Your task to perform on an android device: Search for seafood restaurants on Google Maps Image 0: 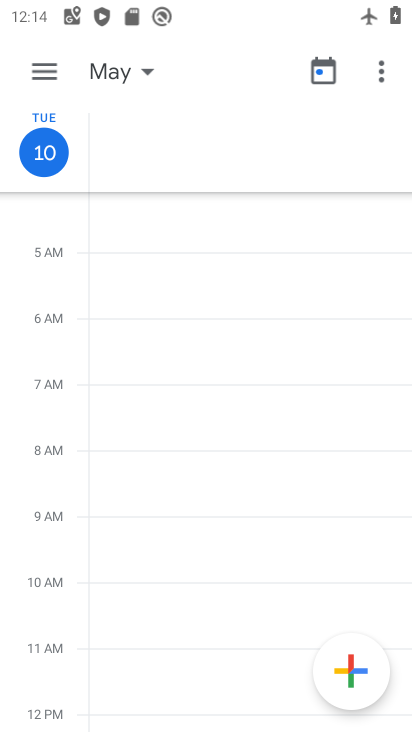
Step 0: press home button
Your task to perform on an android device: Search for seafood restaurants on Google Maps Image 1: 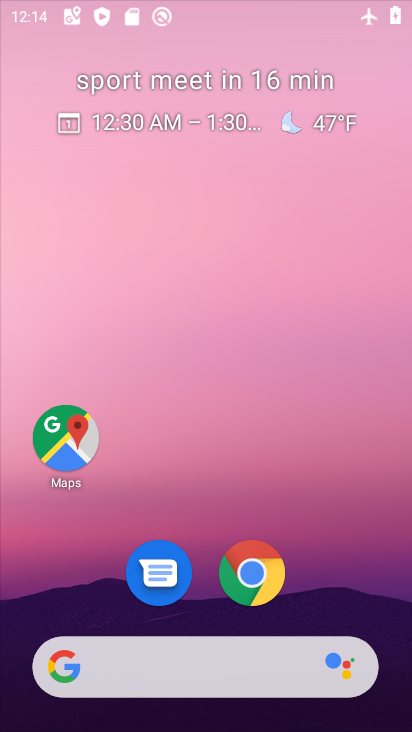
Step 1: drag from (206, 665) to (266, 357)
Your task to perform on an android device: Search for seafood restaurants on Google Maps Image 2: 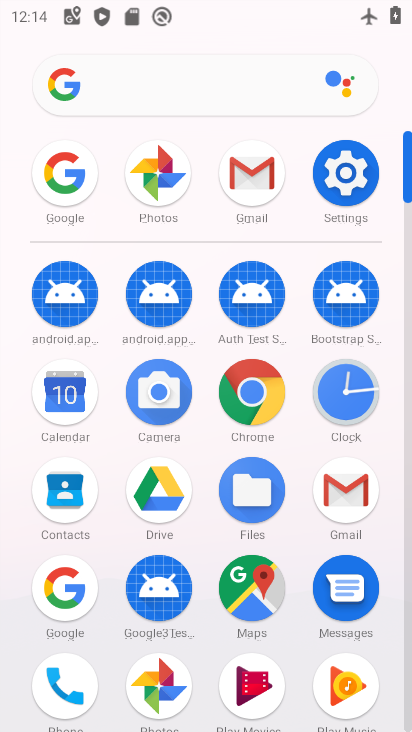
Step 2: click (247, 585)
Your task to perform on an android device: Search for seafood restaurants on Google Maps Image 3: 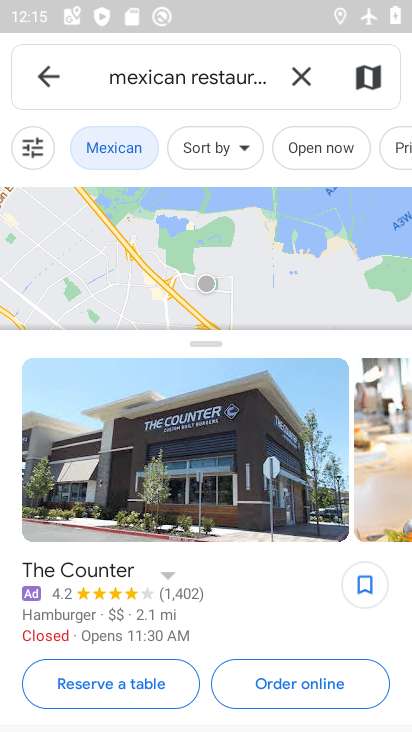
Step 3: drag from (257, 588) to (341, 314)
Your task to perform on an android device: Search for seafood restaurants on Google Maps Image 4: 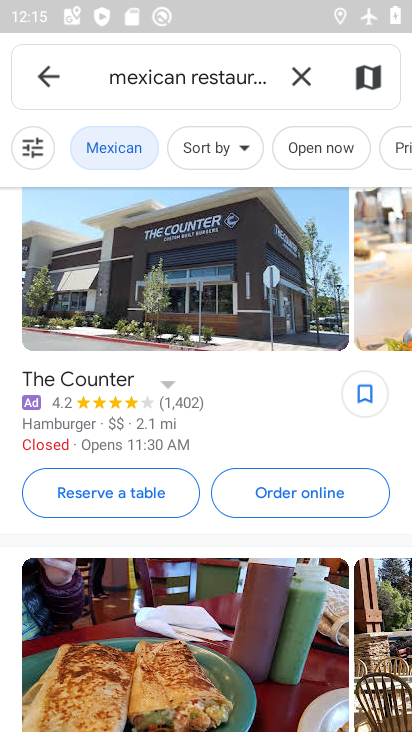
Step 4: drag from (273, 296) to (292, 606)
Your task to perform on an android device: Search for seafood restaurants on Google Maps Image 5: 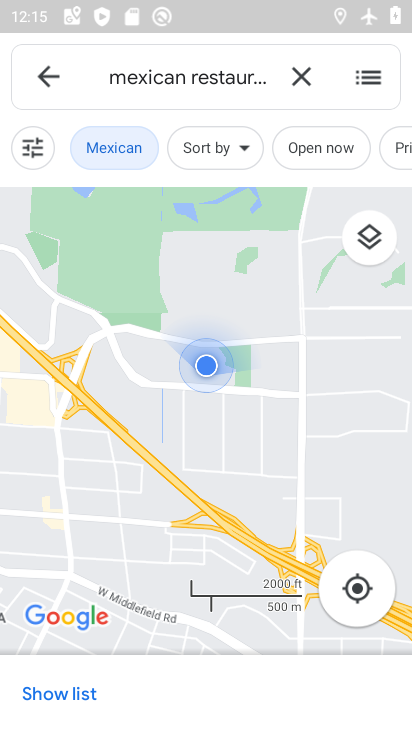
Step 5: click (315, 91)
Your task to perform on an android device: Search for seafood restaurants on Google Maps Image 6: 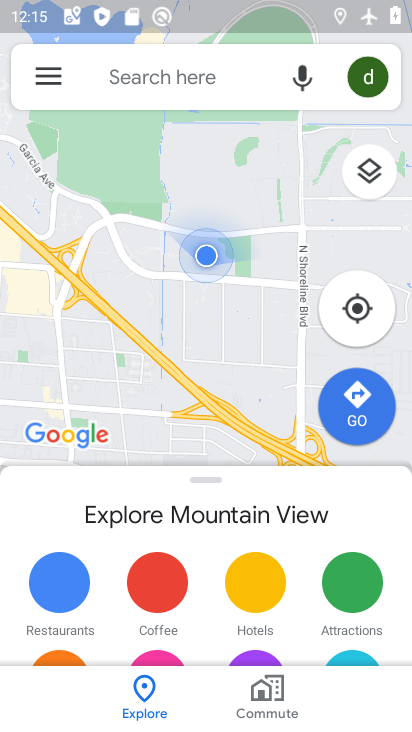
Step 6: drag from (220, 545) to (210, 320)
Your task to perform on an android device: Search for seafood restaurants on Google Maps Image 7: 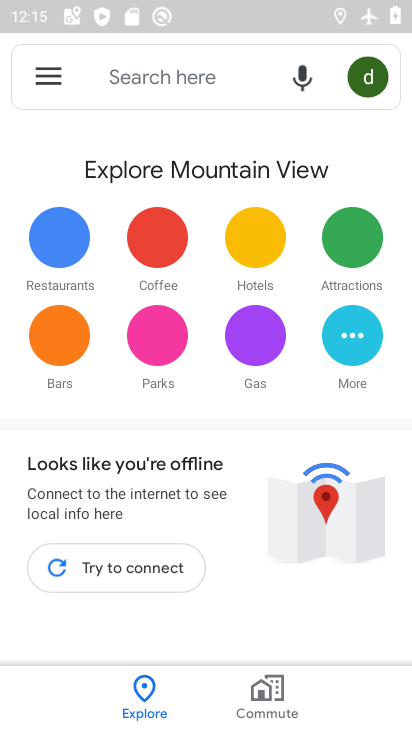
Step 7: drag from (267, 648) to (287, 412)
Your task to perform on an android device: Search for seafood restaurants on Google Maps Image 8: 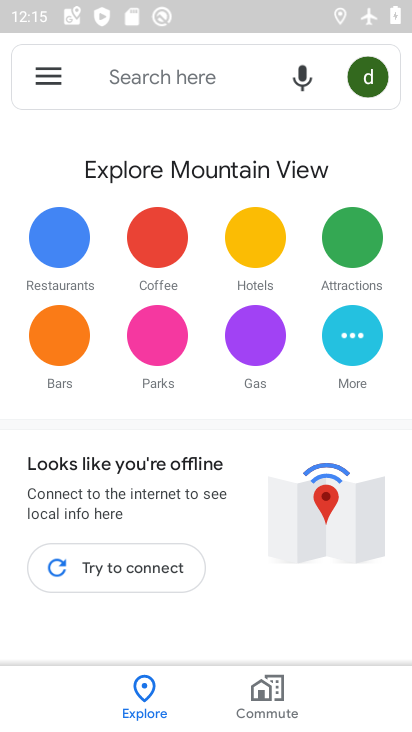
Step 8: press home button
Your task to perform on an android device: Search for seafood restaurants on Google Maps Image 9: 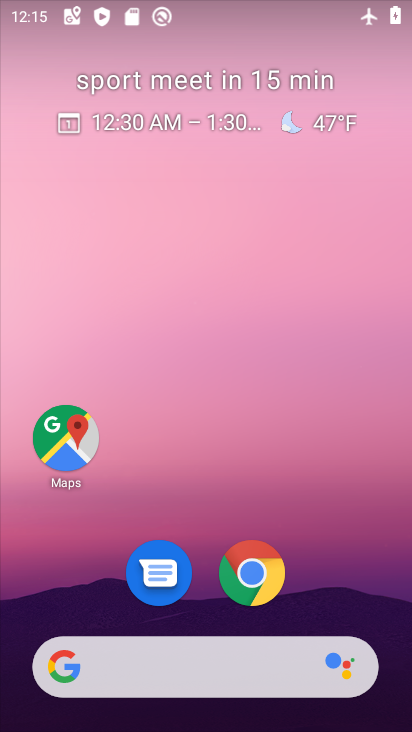
Step 9: drag from (167, 599) to (211, 298)
Your task to perform on an android device: Search for seafood restaurants on Google Maps Image 10: 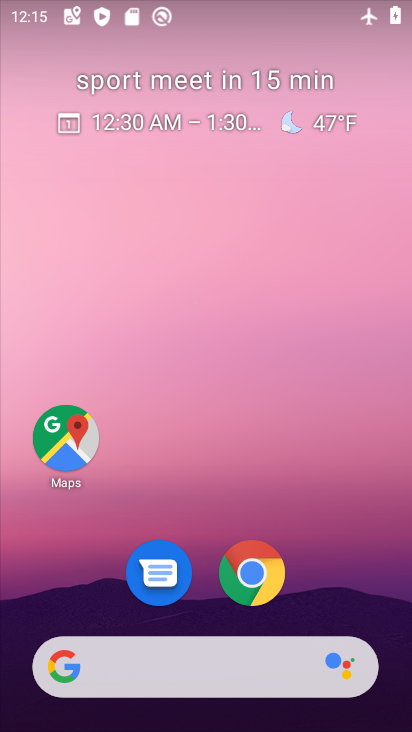
Step 10: drag from (224, 599) to (237, 366)
Your task to perform on an android device: Search for seafood restaurants on Google Maps Image 11: 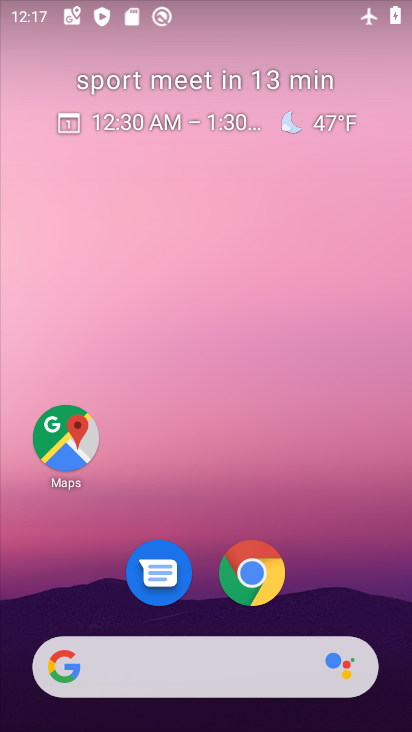
Step 11: drag from (190, 606) to (236, 334)
Your task to perform on an android device: Search for seafood restaurants on Google Maps Image 12: 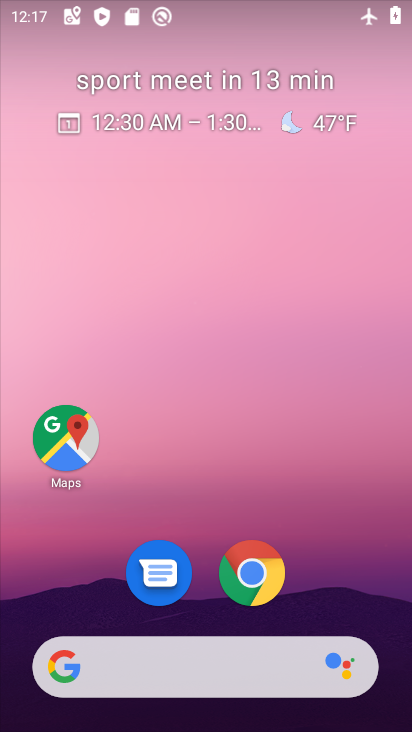
Step 12: drag from (212, 615) to (268, 289)
Your task to perform on an android device: Search for seafood restaurants on Google Maps Image 13: 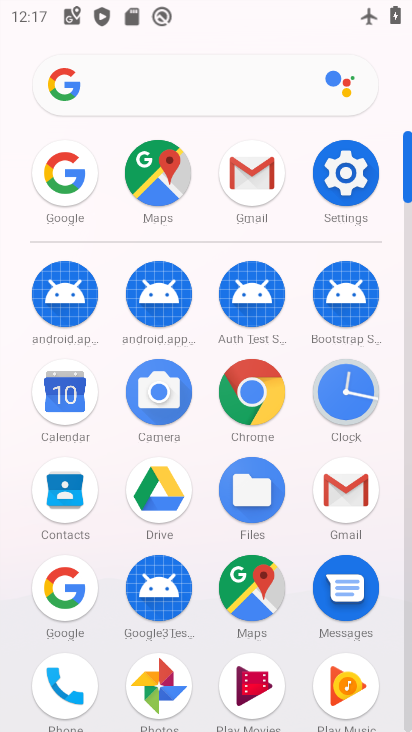
Step 13: click (223, 579)
Your task to perform on an android device: Search for seafood restaurants on Google Maps Image 14: 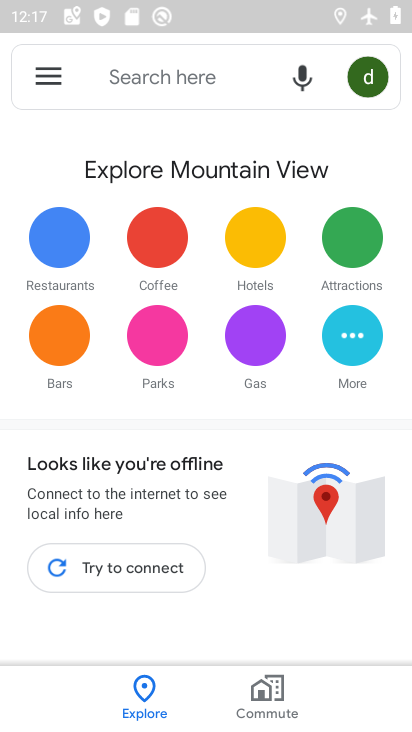
Step 14: click (161, 84)
Your task to perform on an android device: Search for seafood restaurants on Google Maps Image 15: 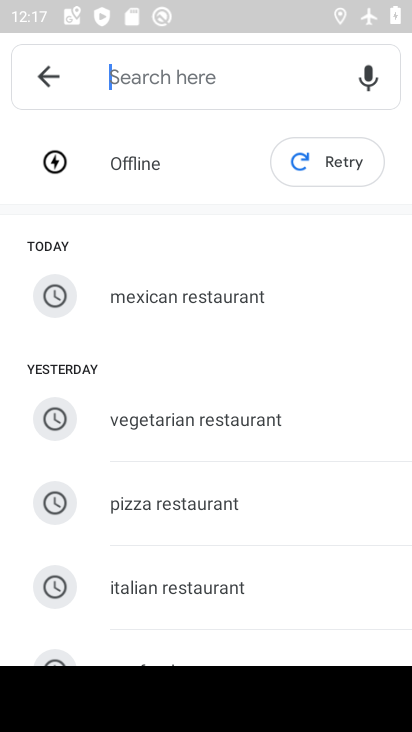
Step 15: drag from (217, 551) to (219, 227)
Your task to perform on an android device: Search for seafood restaurants on Google Maps Image 16: 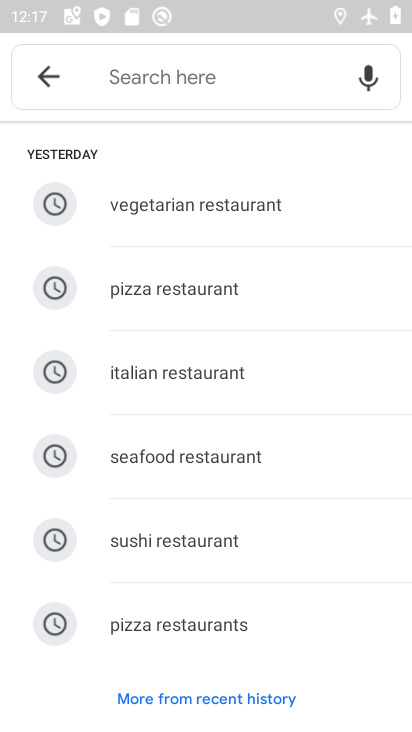
Step 16: click (140, 458)
Your task to perform on an android device: Search for seafood restaurants on Google Maps Image 17: 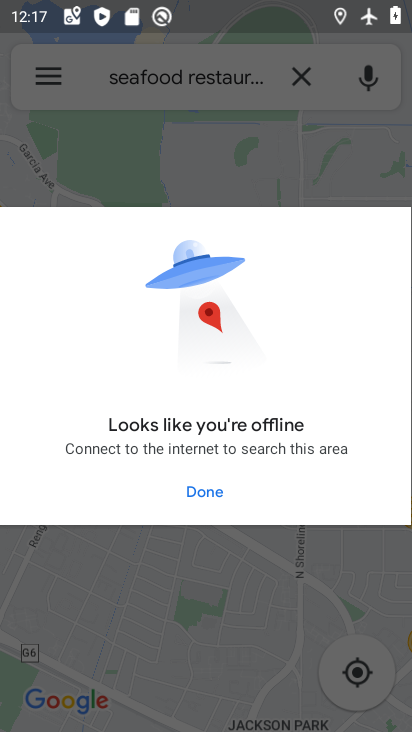
Step 17: task complete